Your task to perform on an android device: delete the emails in spam in the gmail app Image 0: 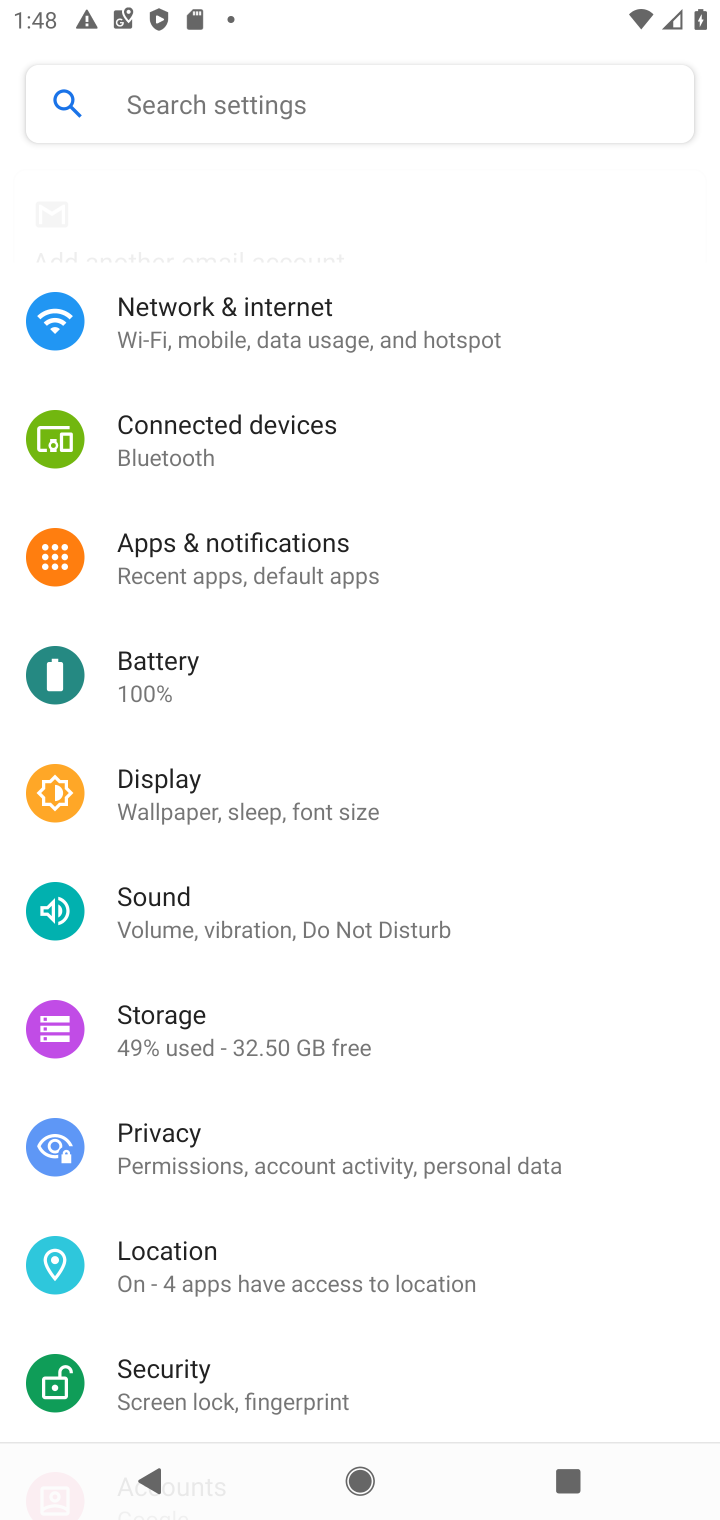
Step 0: press home button
Your task to perform on an android device: delete the emails in spam in the gmail app Image 1: 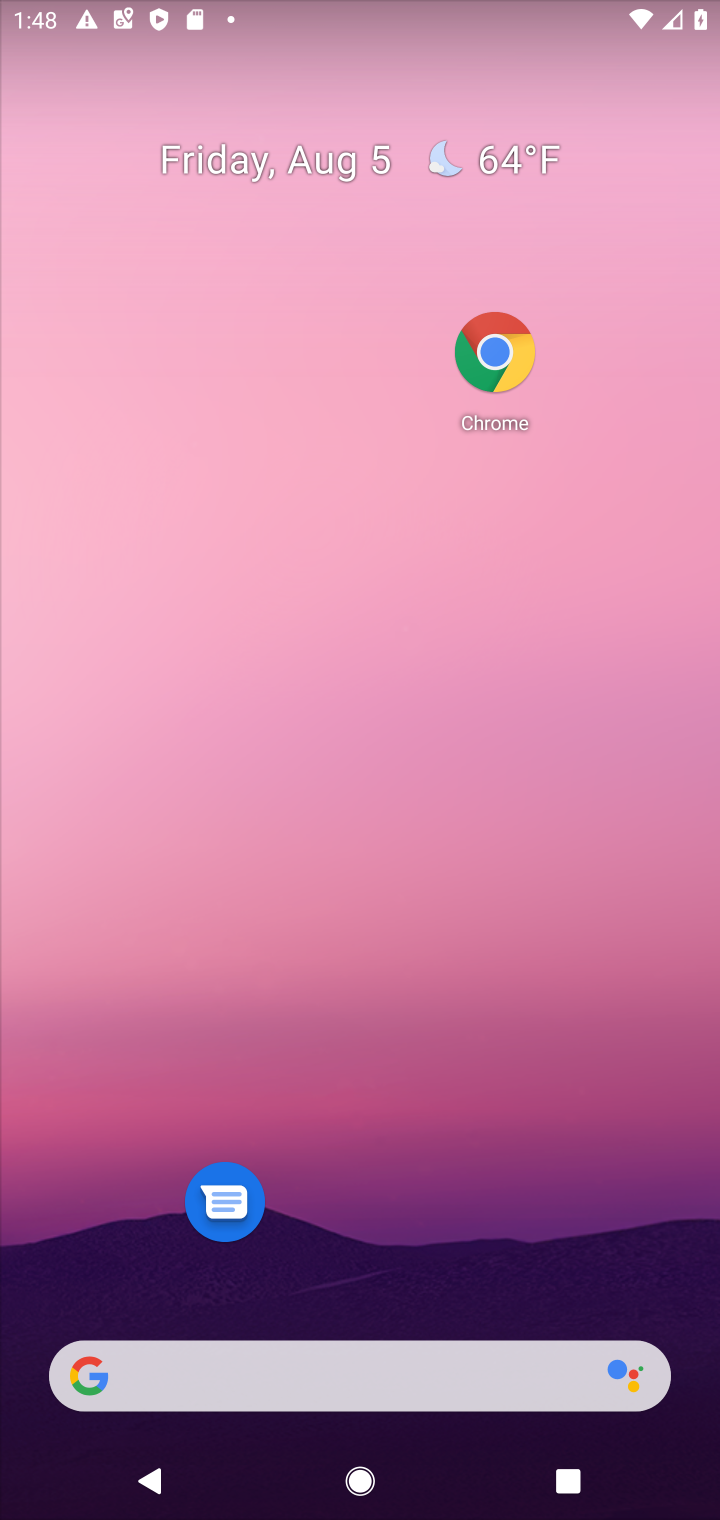
Step 1: drag from (388, 1024) to (361, 231)
Your task to perform on an android device: delete the emails in spam in the gmail app Image 2: 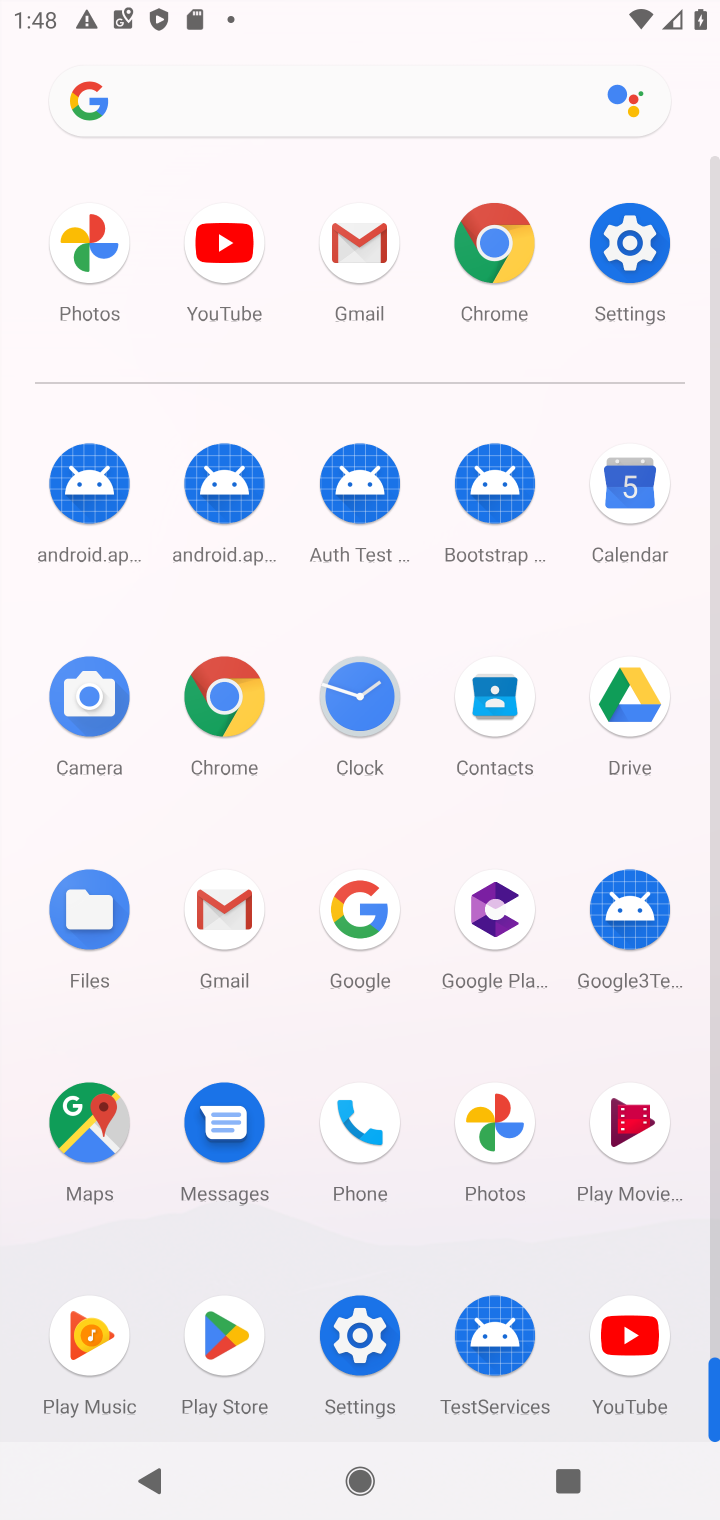
Step 2: click (230, 904)
Your task to perform on an android device: delete the emails in spam in the gmail app Image 3: 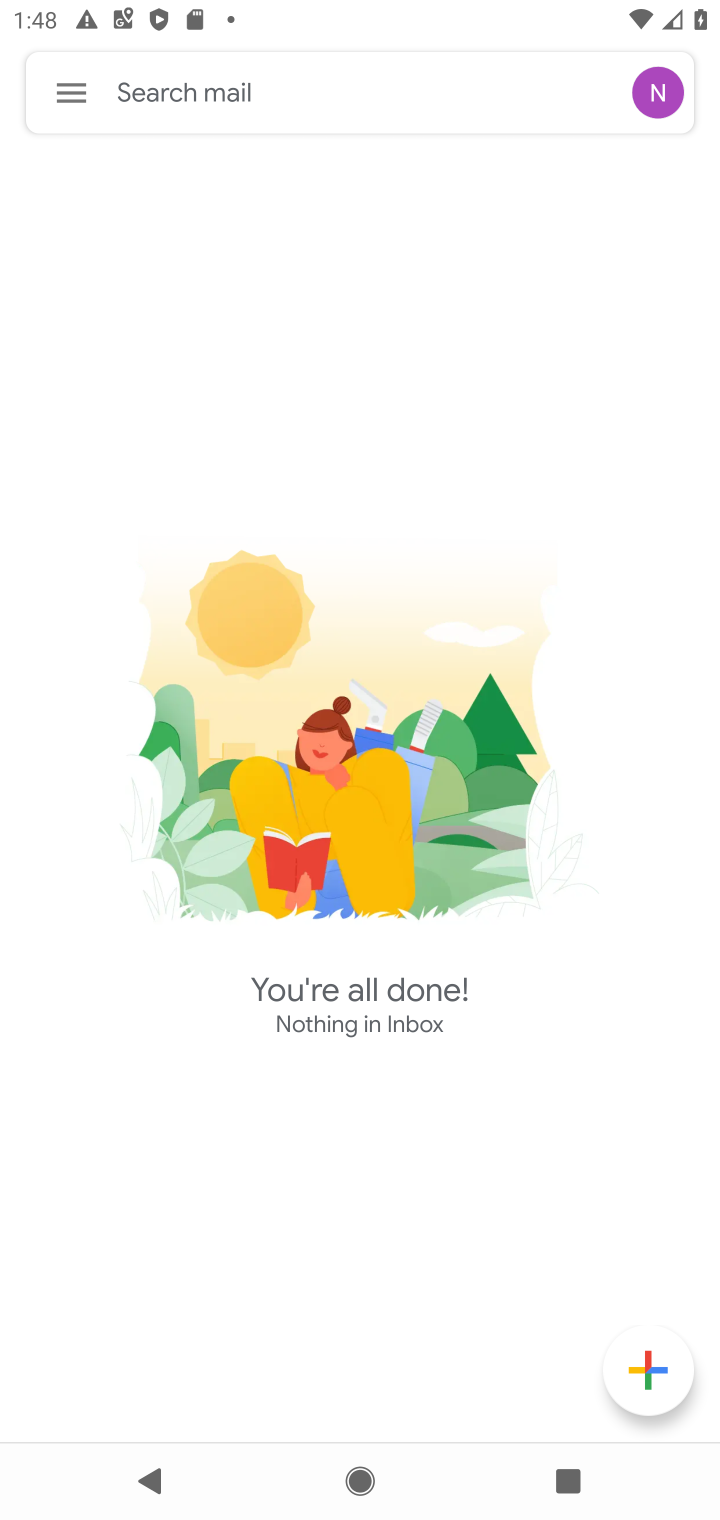
Step 3: click (72, 80)
Your task to perform on an android device: delete the emails in spam in the gmail app Image 4: 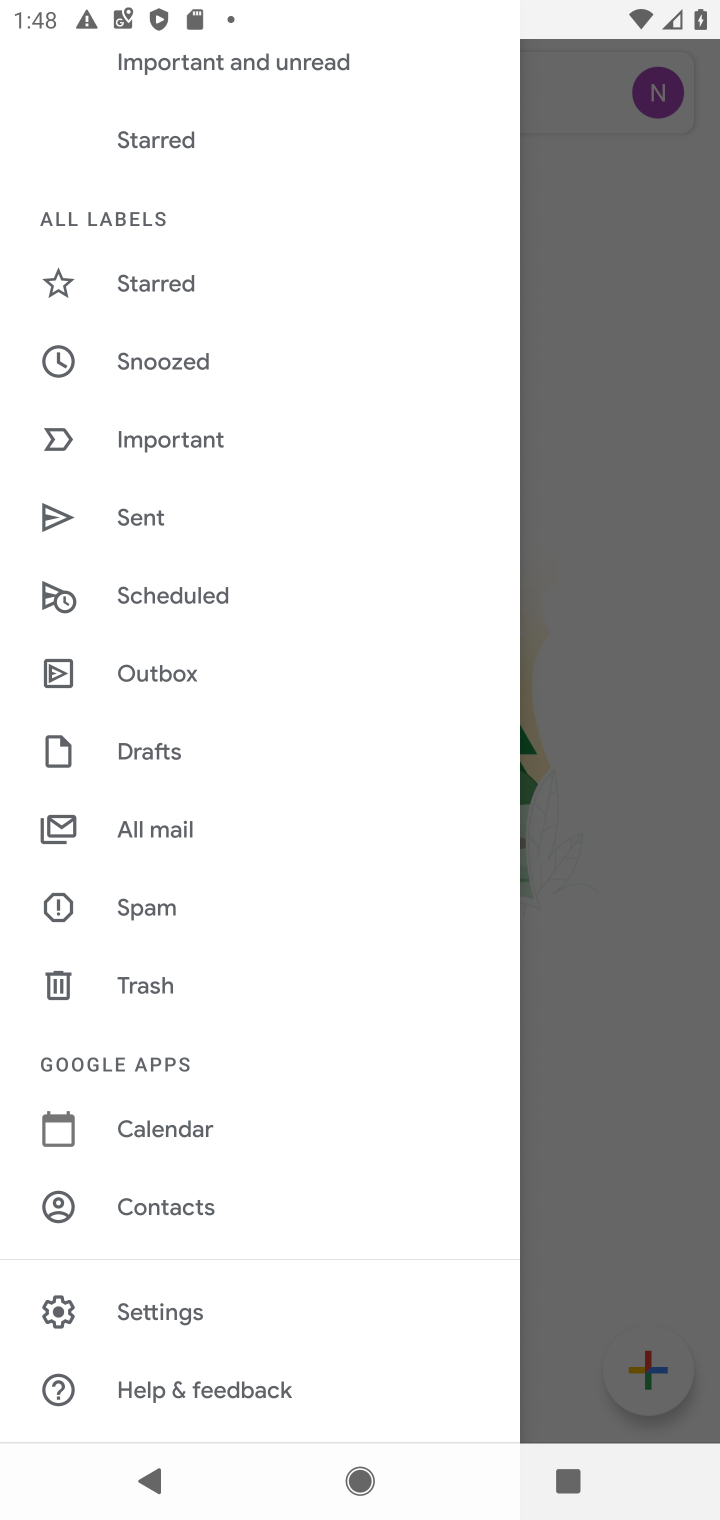
Step 4: click (156, 1315)
Your task to perform on an android device: delete the emails in spam in the gmail app Image 5: 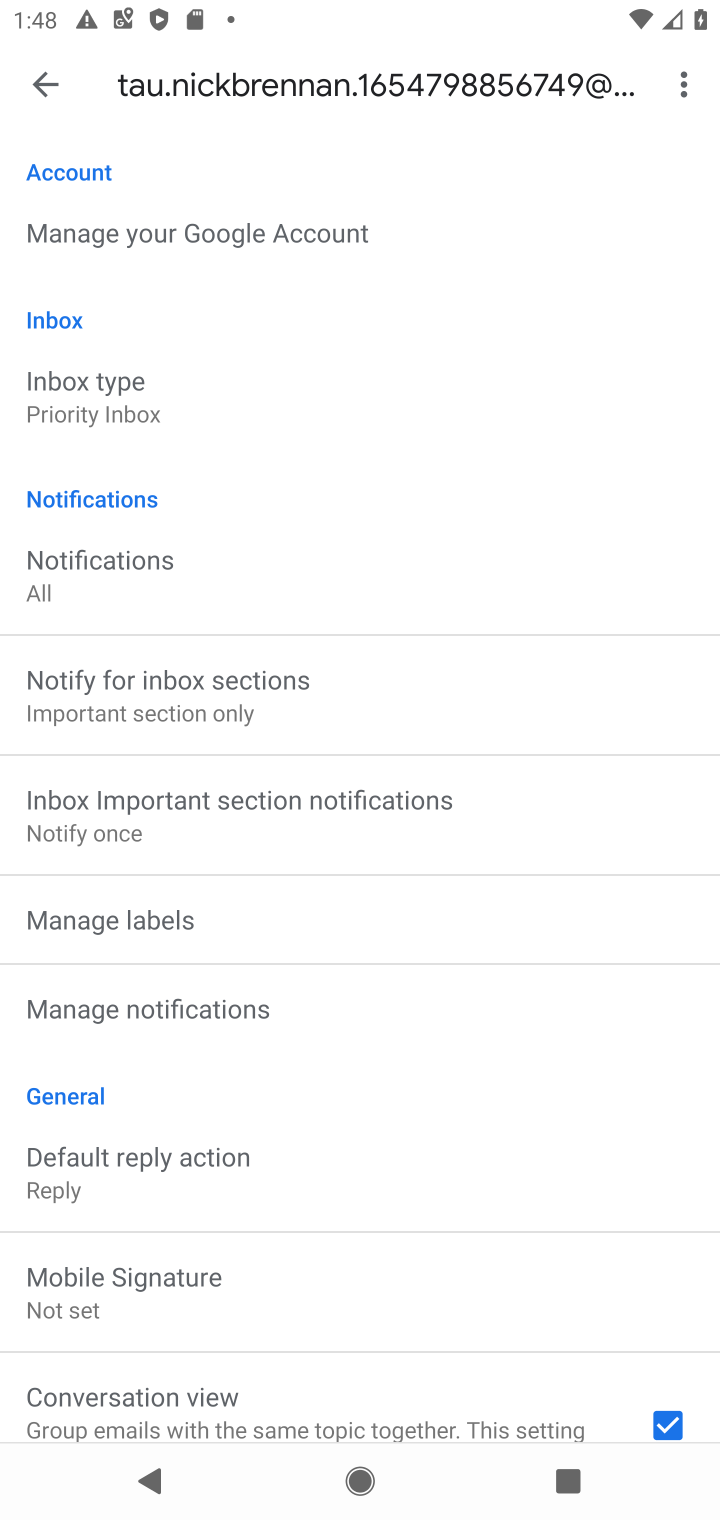
Step 5: click (49, 33)
Your task to perform on an android device: delete the emails in spam in the gmail app Image 6: 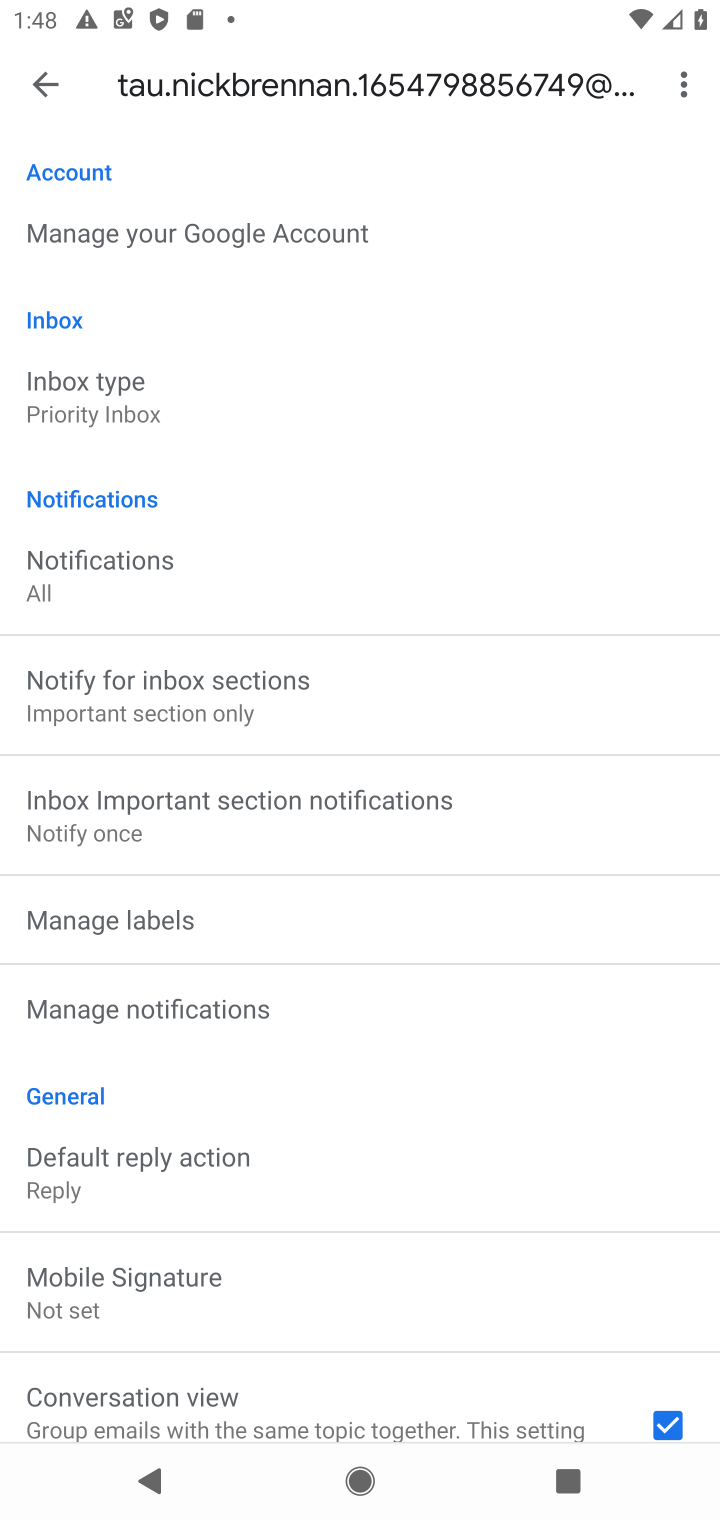
Step 6: click (25, 95)
Your task to perform on an android device: delete the emails in spam in the gmail app Image 7: 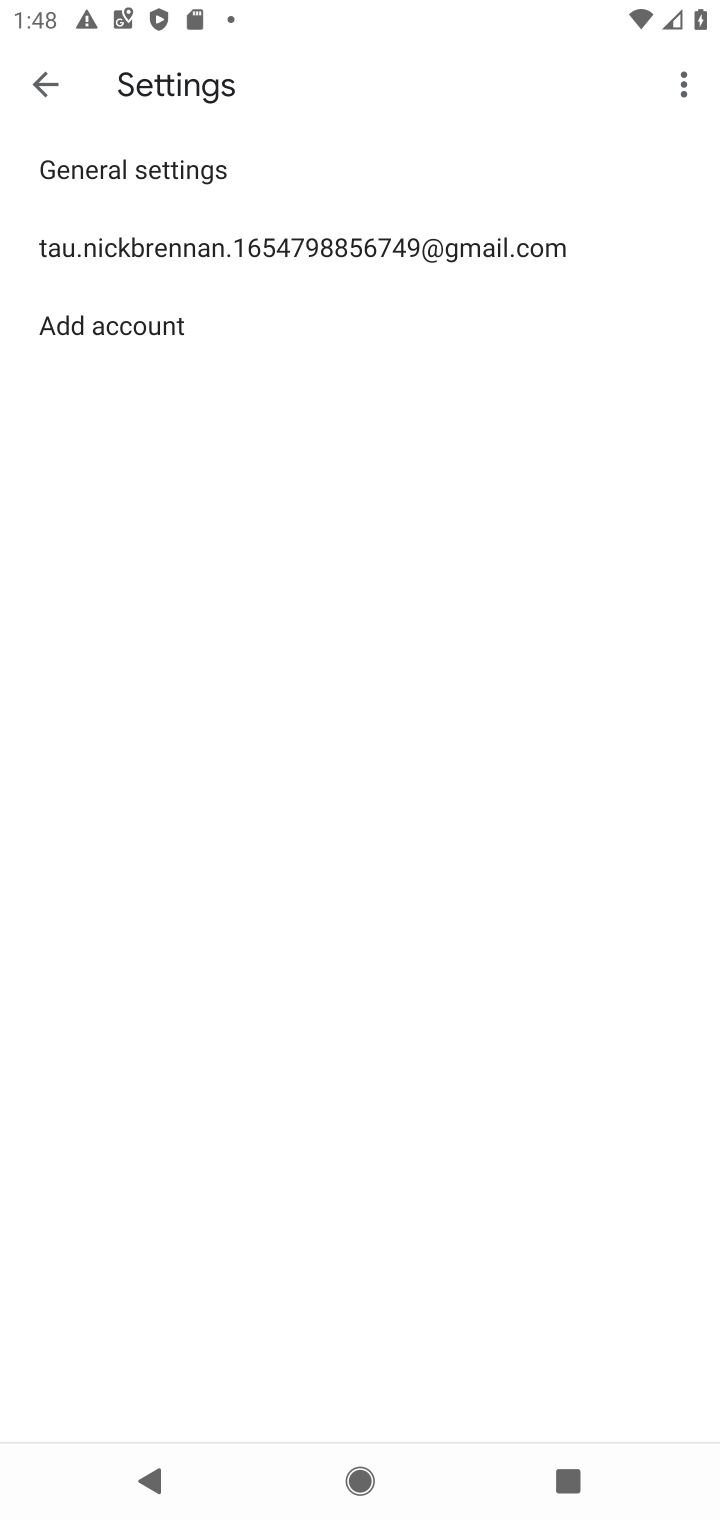
Step 7: click (25, 95)
Your task to perform on an android device: delete the emails in spam in the gmail app Image 8: 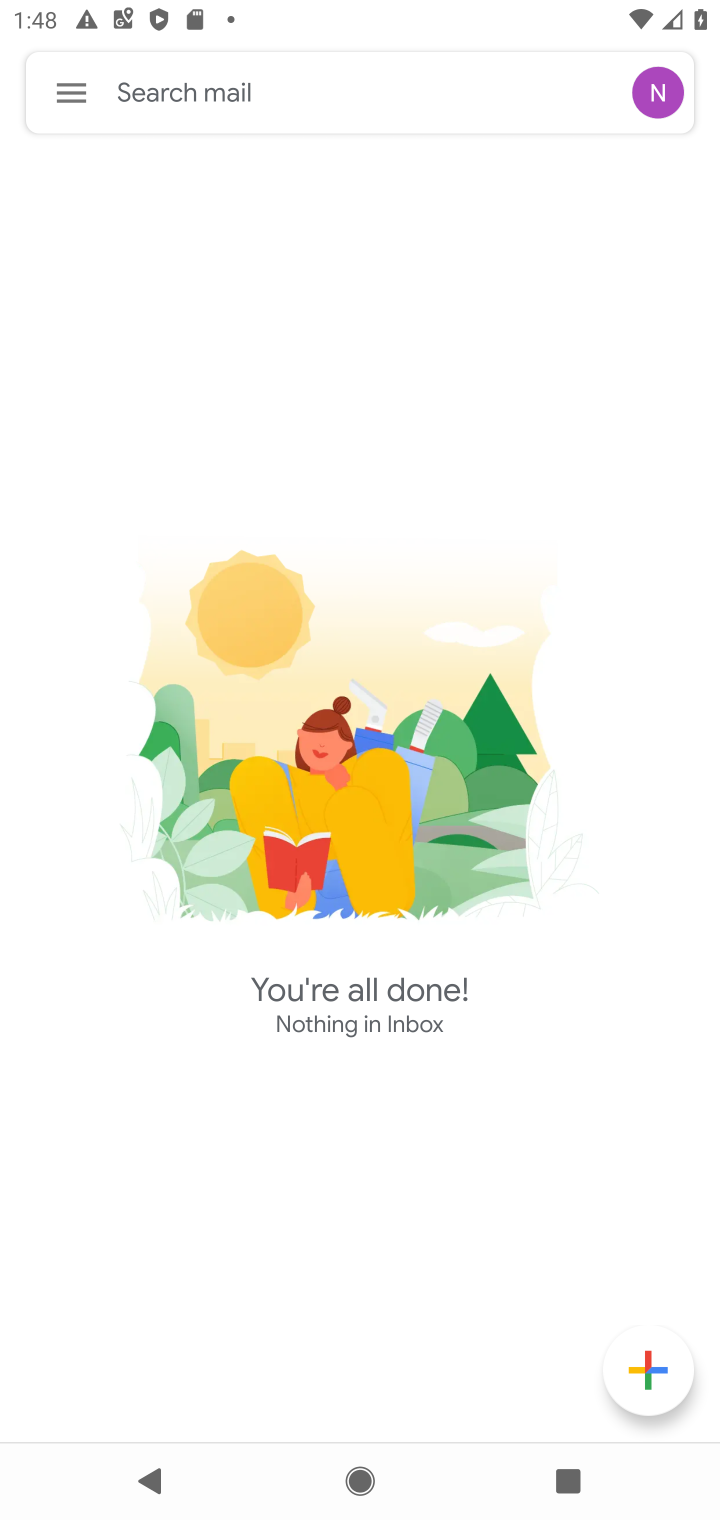
Step 8: click (29, 92)
Your task to perform on an android device: delete the emails in spam in the gmail app Image 9: 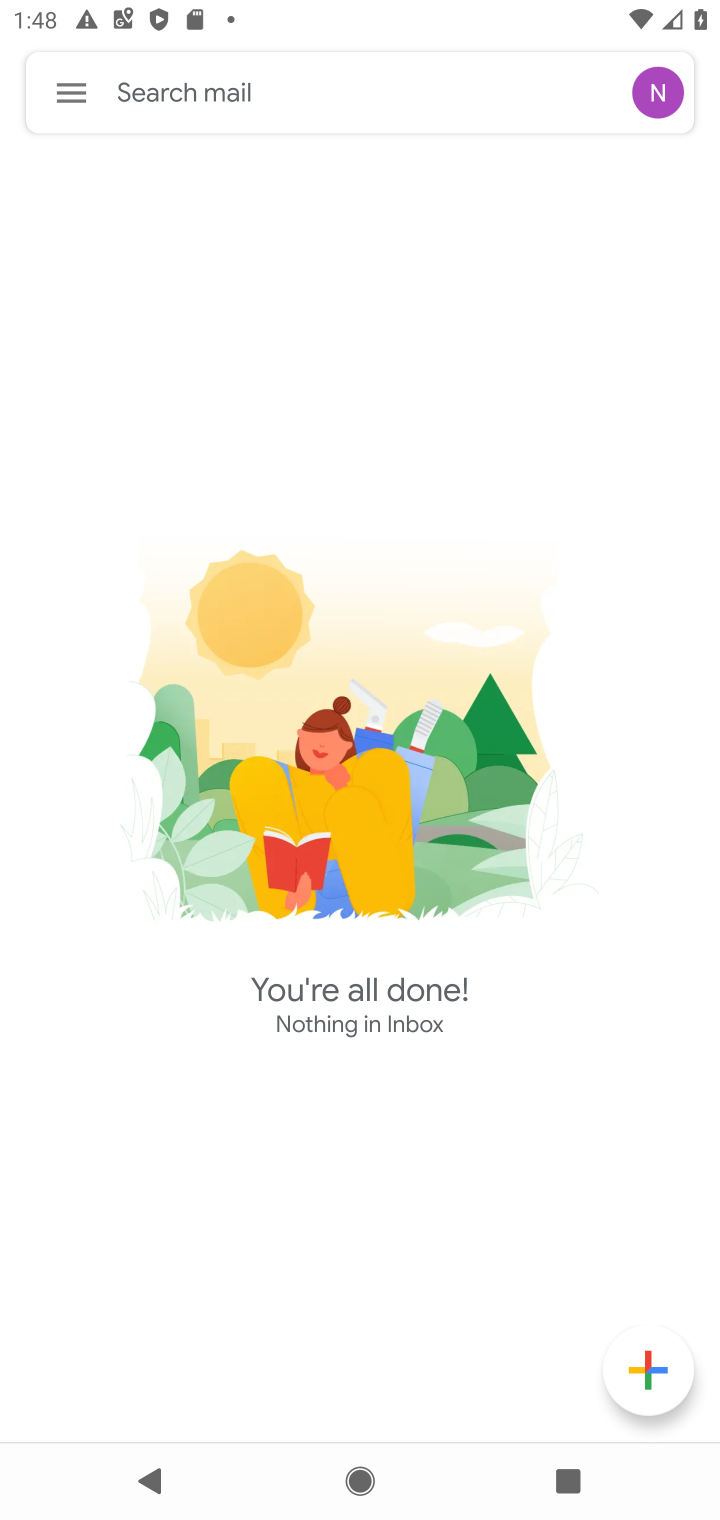
Step 9: click (57, 95)
Your task to perform on an android device: delete the emails in spam in the gmail app Image 10: 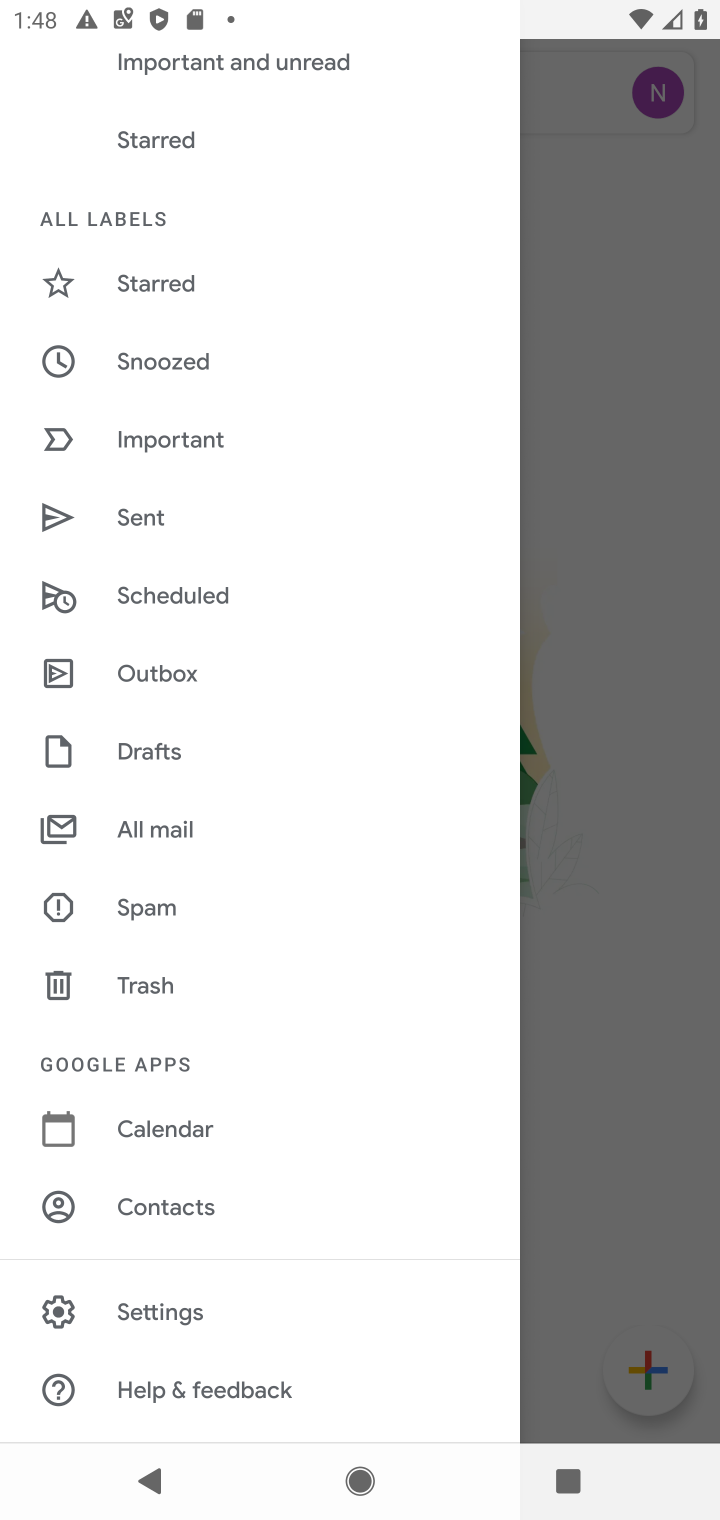
Step 10: click (155, 891)
Your task to perform on an android device: delete the emails in spam in the gmail app Image 11: 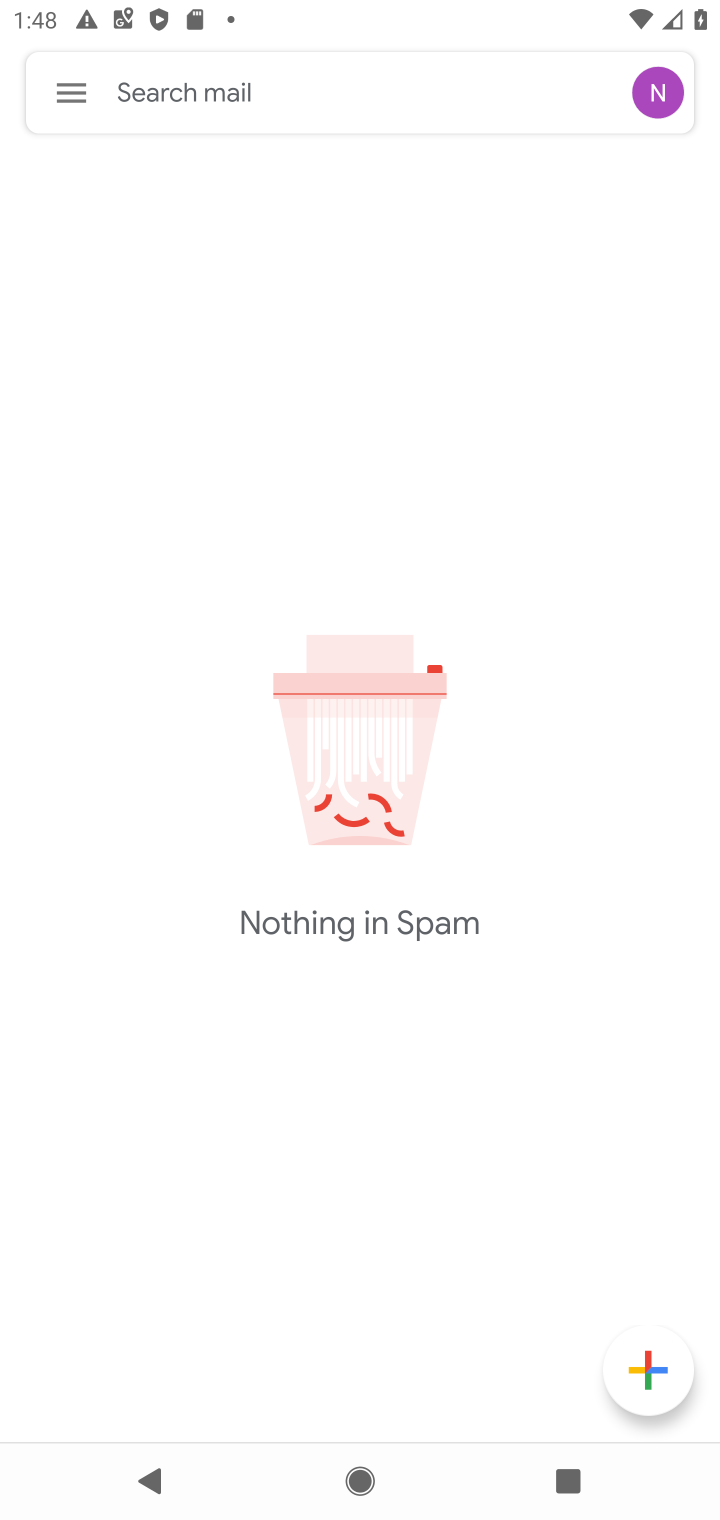
Step 11: task complete